Your task to perform on an android device: turn on location history Image 0: 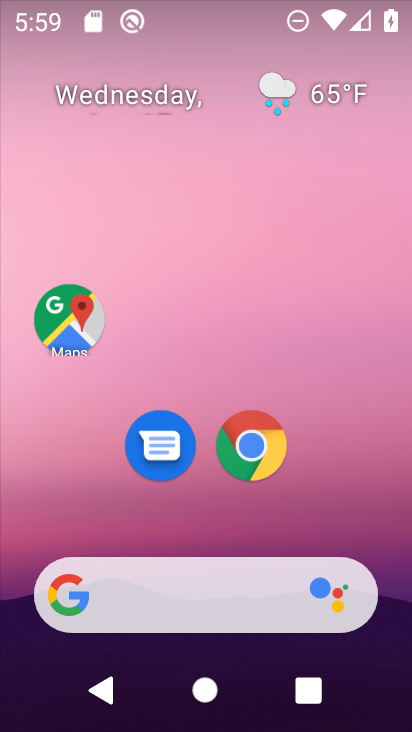
Step 0: drag from (222, 521) to (199, 119)
Your task to perform on an android device: turn on location history Image 1: 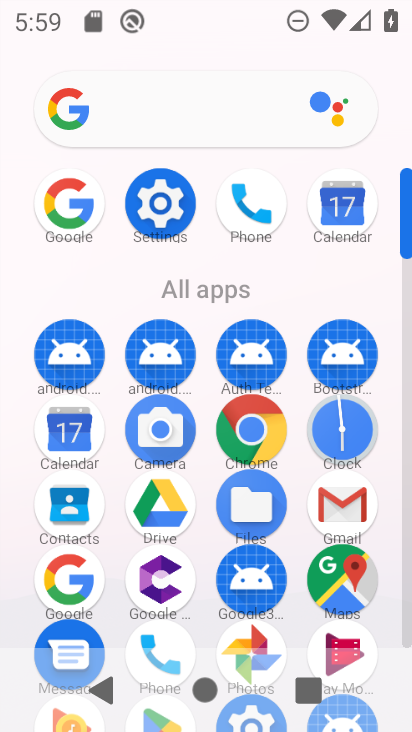
Step 1: click (151, 208)
Your task to perform on an android device: turn on location history Image 2: 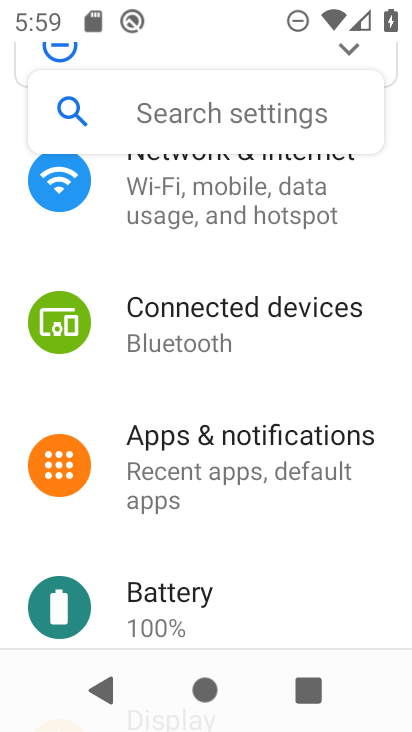
Step 2: drag from (230, 575) to (238, 244)
Your task to perform on an android device: turn on location history Image 3: 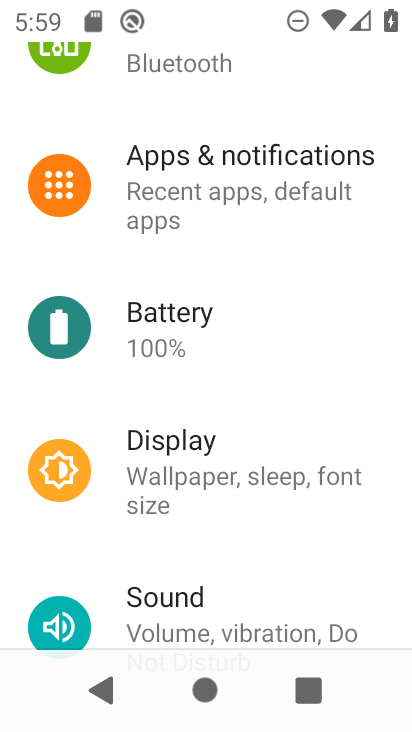
Step 3: drag from (197, 569) to (206, 264)
Your task to perform on an android device: turn on location history Image 4: 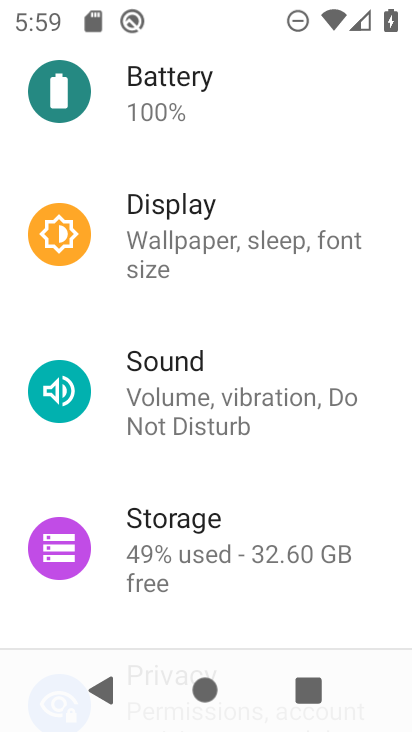
Step 4: drag from (240, 497) to (240, 175)
Your task to perform on an android device: turn on location history Image 5: 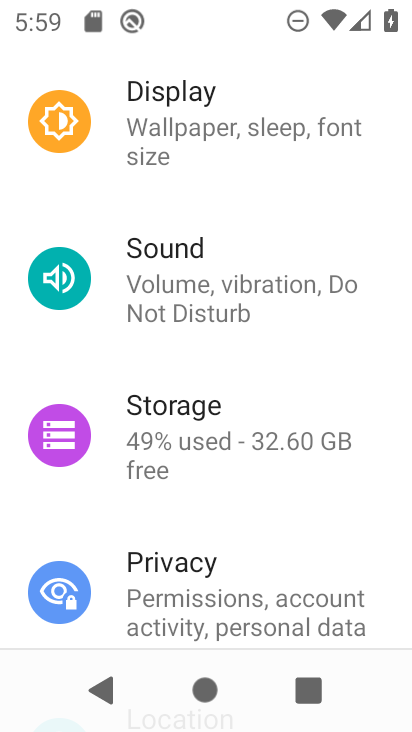
Step 5: drag from (251, 511) to (256, 125)
Your task to perform on an android device: turn on location history Image 6: 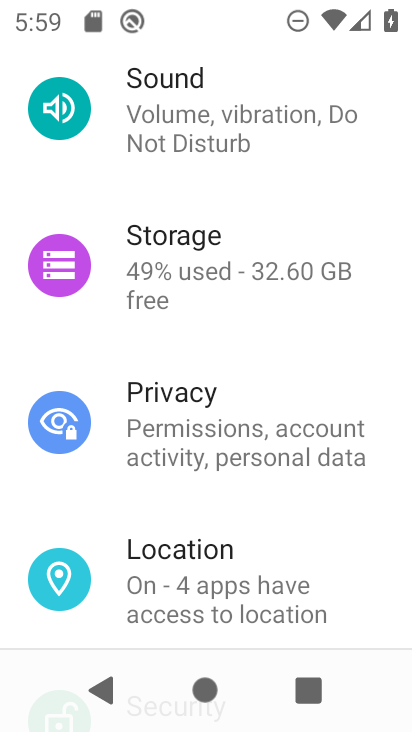
Step 6: click (235, 524)
Your task to perform on an android device: turn on location history Image 7: 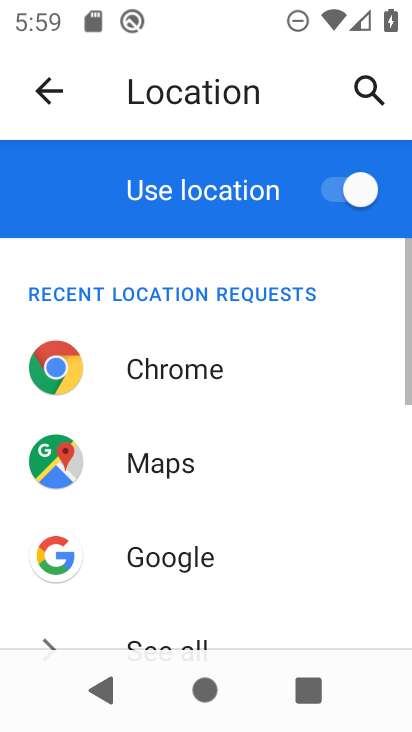
Step 7: drag from (235, 579) to (241, 168)
Your task to perform on an android device: turn on location history Image 8: 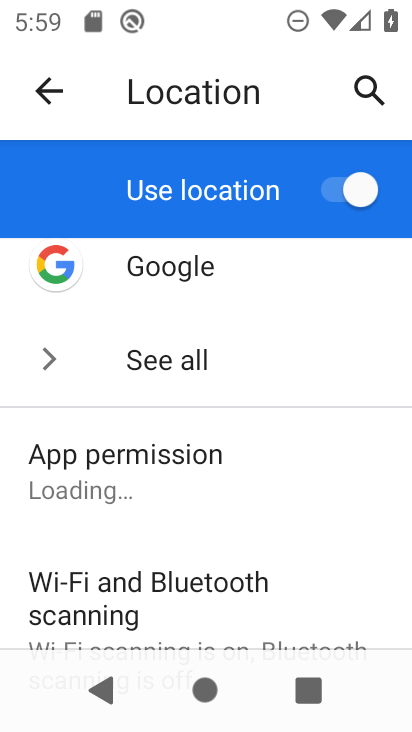
Step 8: drag from (240, 527) to (256, 202)
Your task to perform on an android device: turn on location history Image 9: 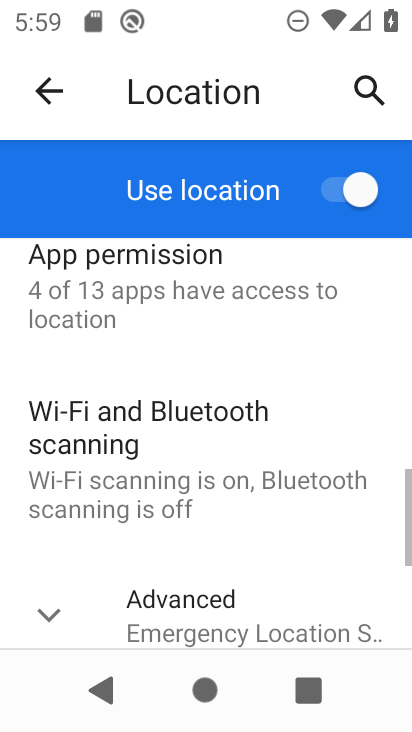
Step 9: click (247, 560)
Your task to perform on an android device: turn on location history Image 10: 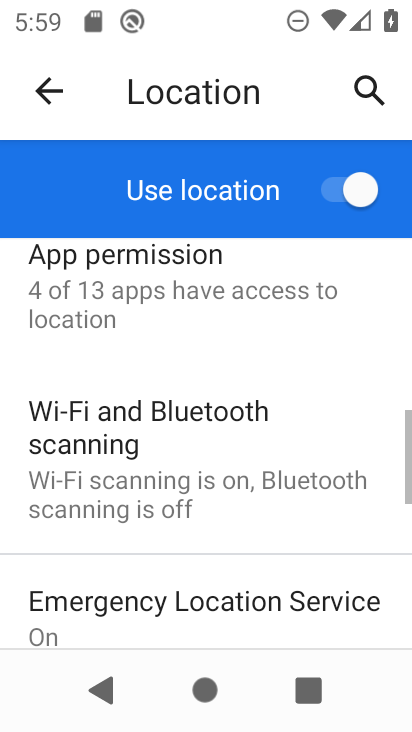
Step 10: drag from (249, 559) to (268, 180)
Your task to perform on an android device: turn on location history Image 11: 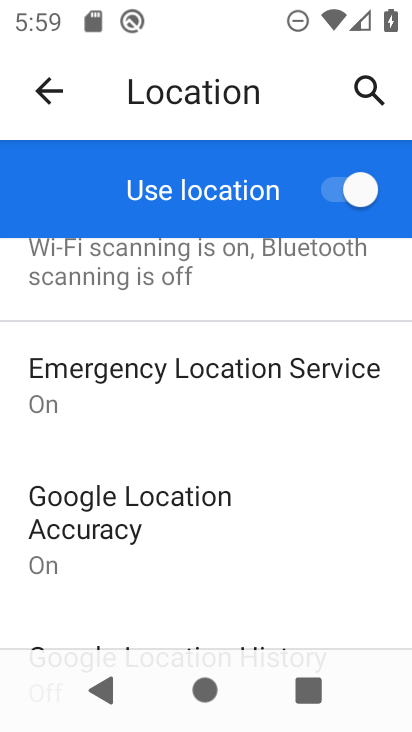
Step 11: drag from (259, 428) to (260, 227)
Your task to perform on an android device: turn on location history Image 12: 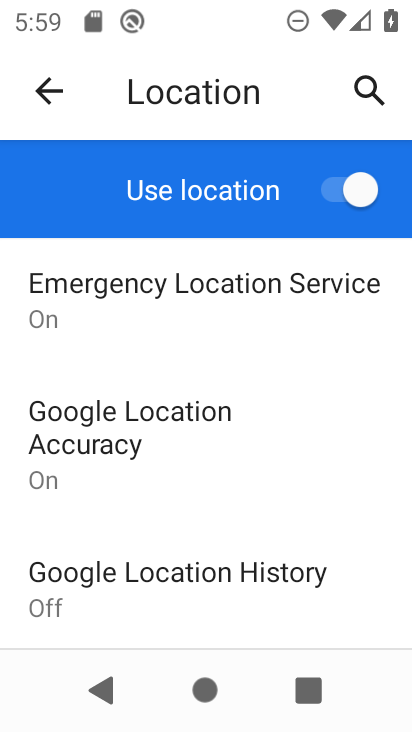
Step 12: click (256, 569)
Your task to perform on an android device: turn on location history Image 13: 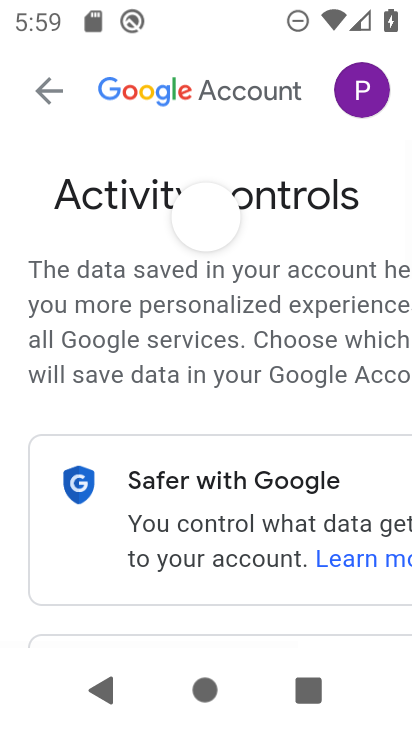
Step 13: drag from (250, 571) to (254, 208)
Your task to perform on an android device: turn on location history Image 14: 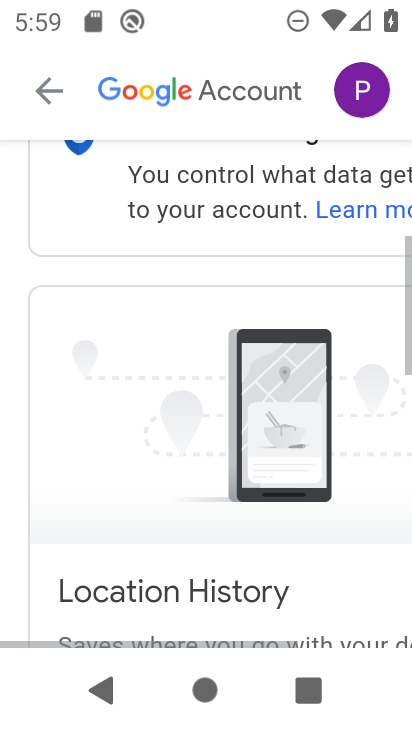
Step 14: drag from (229, 570) to (236, 209)
Your task to perform on an android device: turn on location history Image 15: 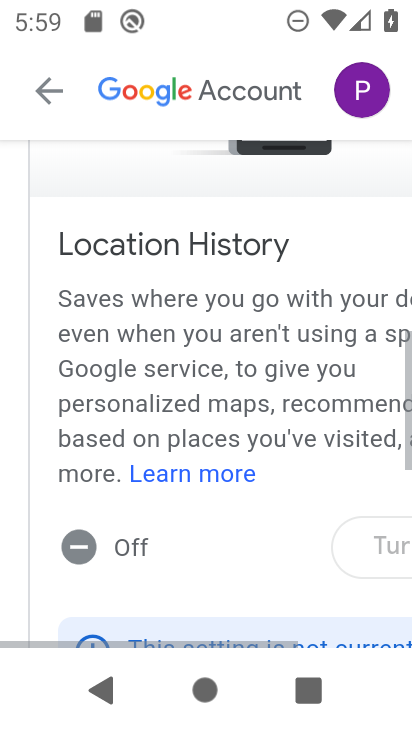
Step 15: drag from (273, 505) to (276, 217)
Your task to perform on an android device: turn on location history Image 16: 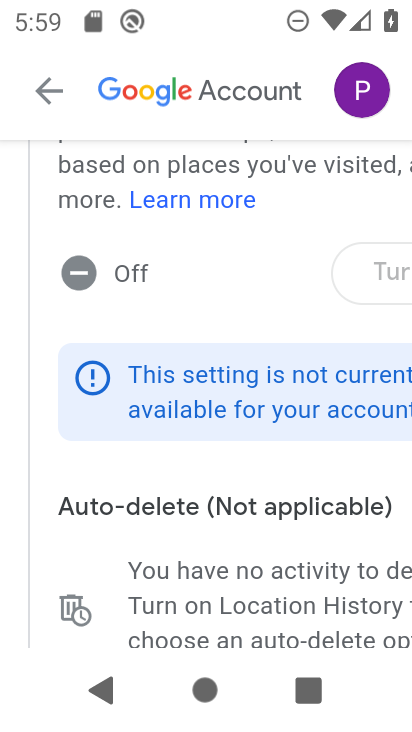
Step 16: click (381, 257)
Your task to perform on an android device: turn on location history Image 17: 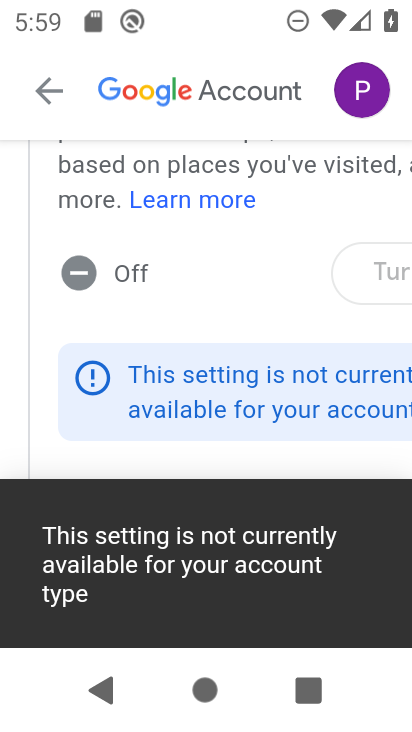
Step 17: click (372, 274)
Your task to perform on an android device: turn on location history Image 18: 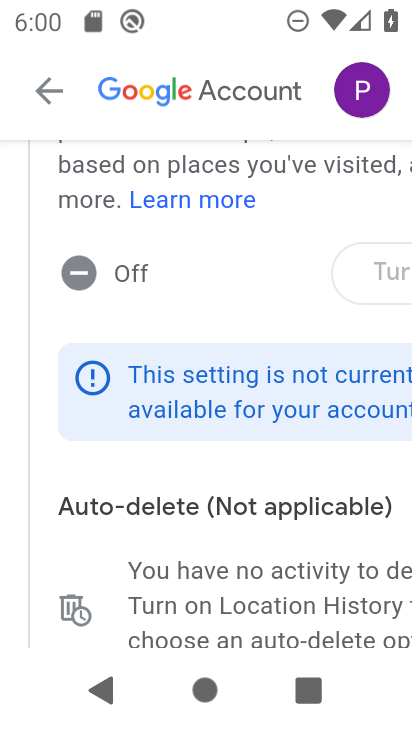
Step 18: task complete